Your task to perform on an android device: Check the weather Image 0: 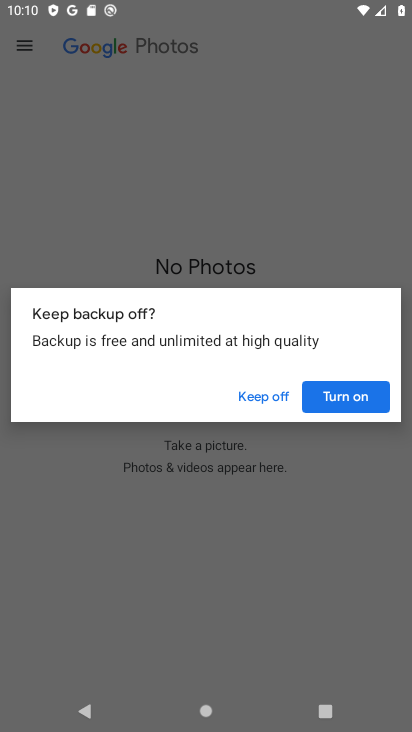
Step 0: press back button
Your task to perform on an android device: Check the weather Image 1: 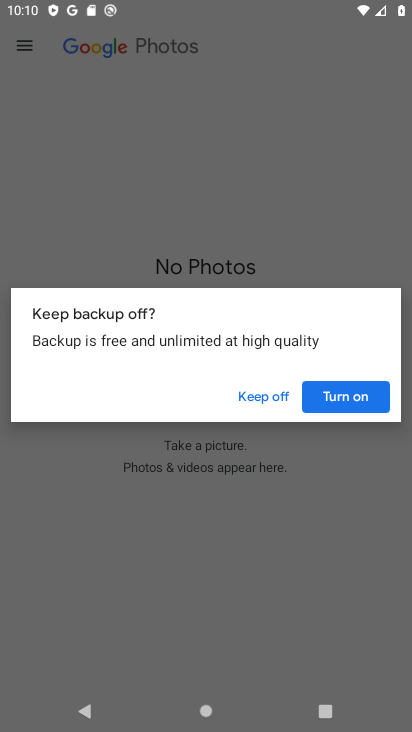
Step 1: press back button
Your task to perform on an android device: Check the weather Image 2: 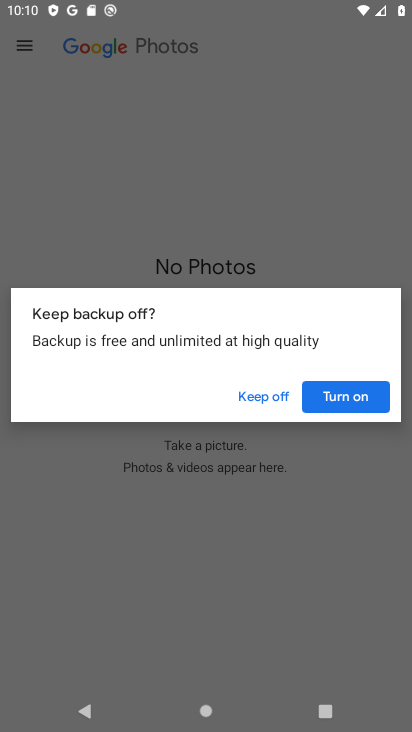
Step 2: click (251, 404)
Your task to perform on an android device: Check the weather Image 3: 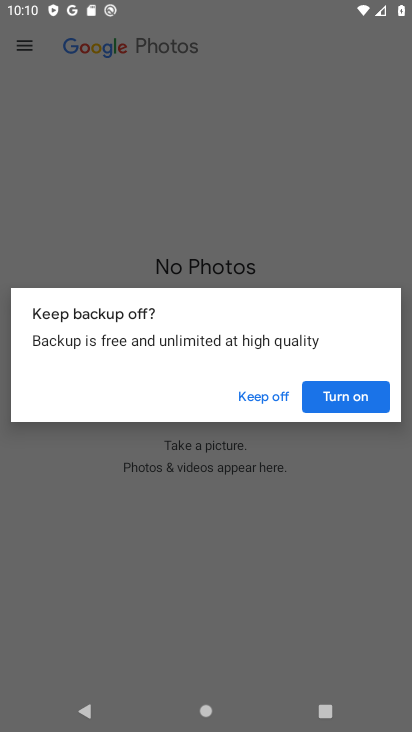
Step 3: click (252, 389)
Your task to perform on an android device: Check the weather Image 4: 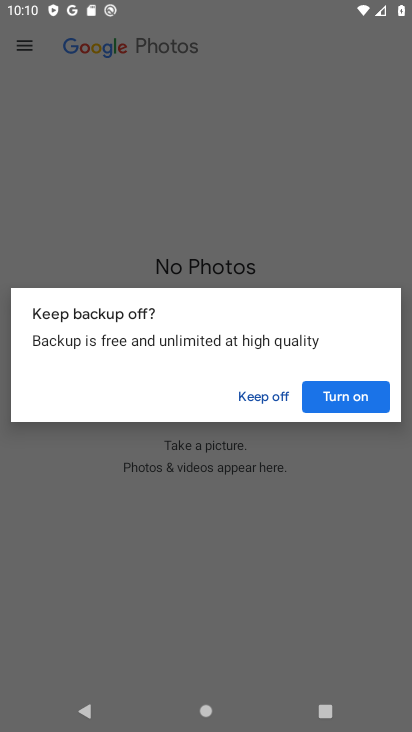
Step 4: click (253, 389)
Your task to perform on an android device: Check the weather Image 5: 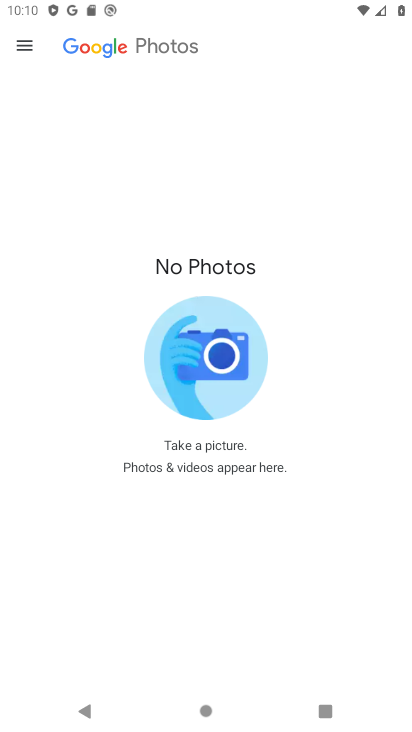
Step 5: click (262, 397)
Your task to perform on an android device: Check the weather Image 6: 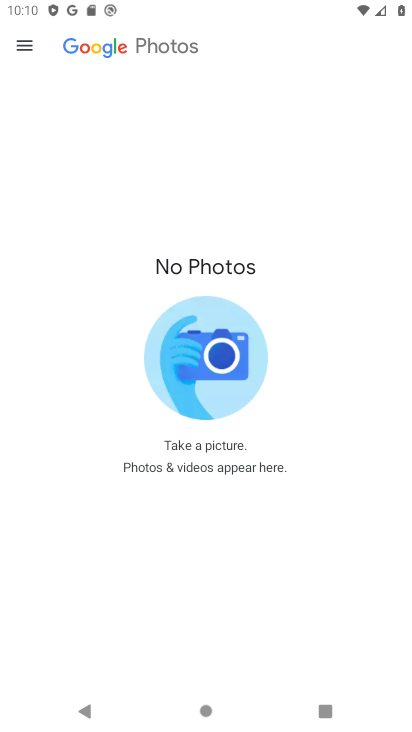
Step 6: press back button
Your task to perform on an android device: Check the weather Image 7: 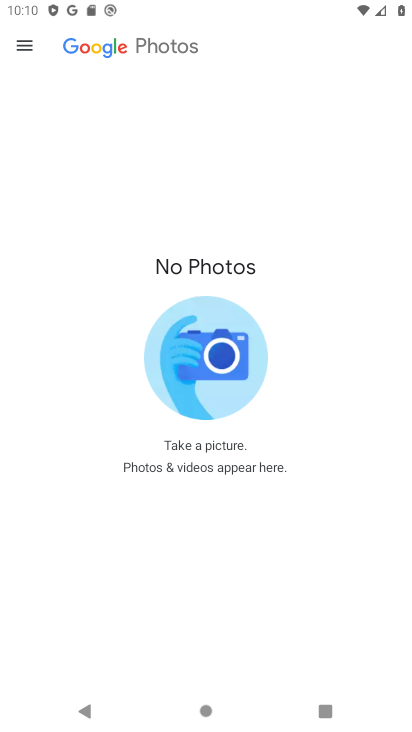
Step 7: press back button
Your task to perform on an android device: Check the weather Image 8: 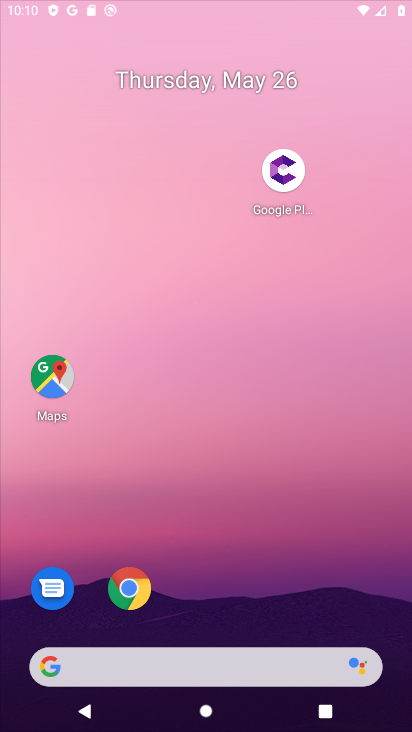
Step 8: press back button
Your task to perform on an android device: Check the weather Image 9: 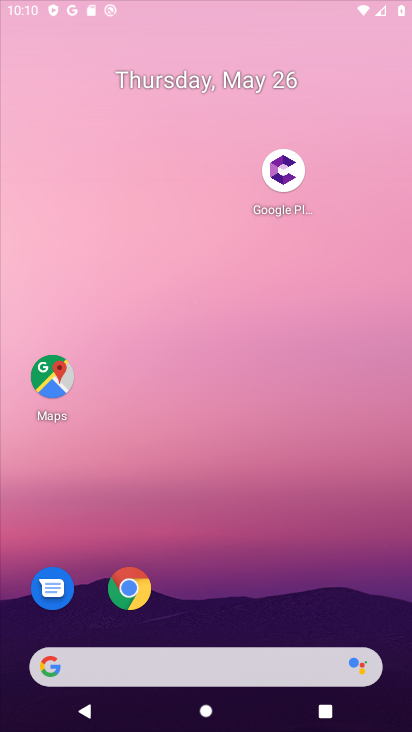
Step 9: press home button
Your task to perform on an android device: Check the weather Image 10: 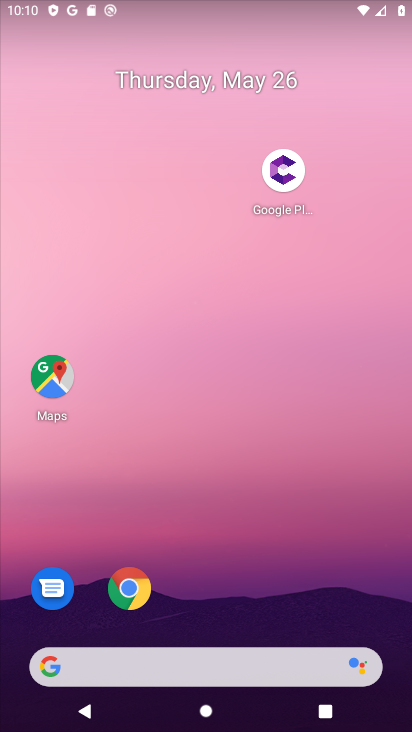
Step 10: press home button
Your task to perform on an android device: Check the weather Image 11: 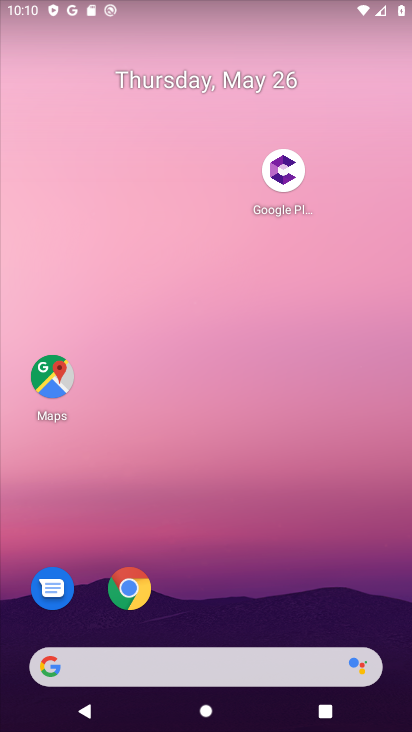
Step 11: drag from (12, 197) to (375, 463)
Your task to perform on an android device: Check the weather Image 12: 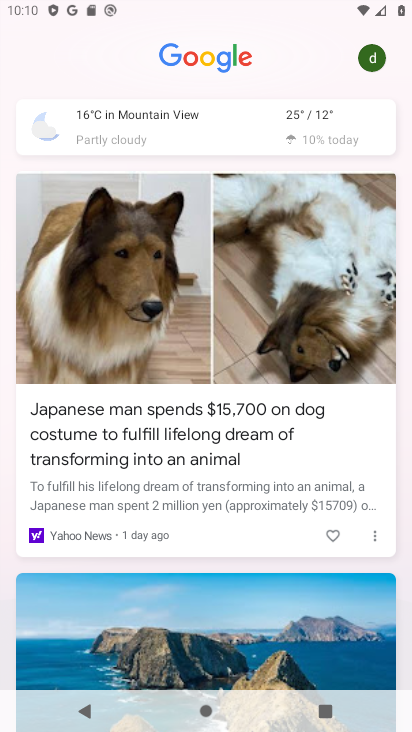
Step 12: click (184, 126)
Your task to perform on an android device: Check the weather Image 13: 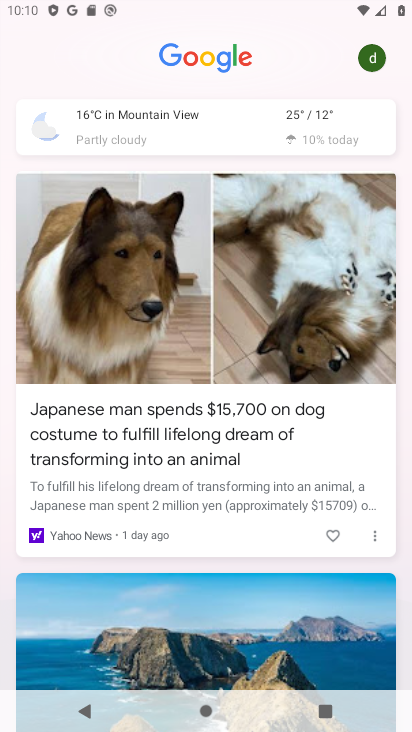
Step 13: click (184, 124)
Your task to perform on an android device: Check the weather Image 14: 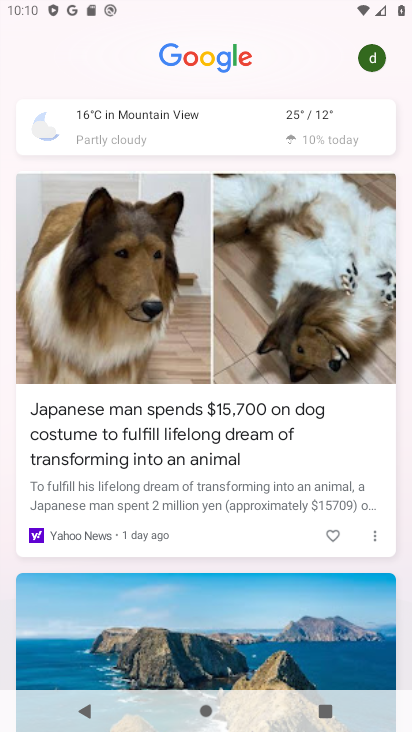
Step 14: click (185, 123)
Your task to perform on an android device: Check the weather Image 15: 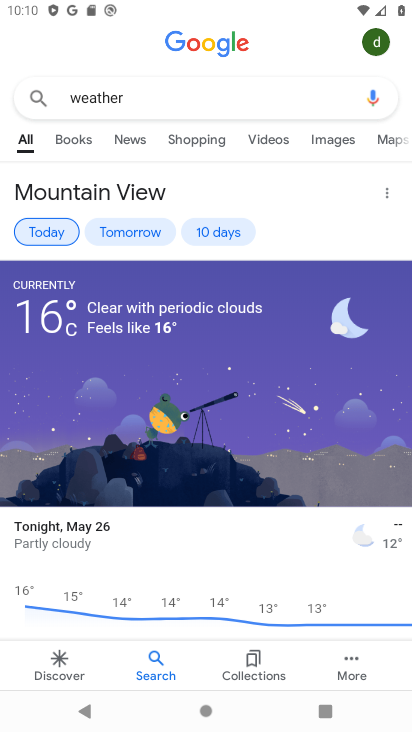
Step 15: task complete